Your task to perform on an android device: What's a good restaurant near me? Image 0: 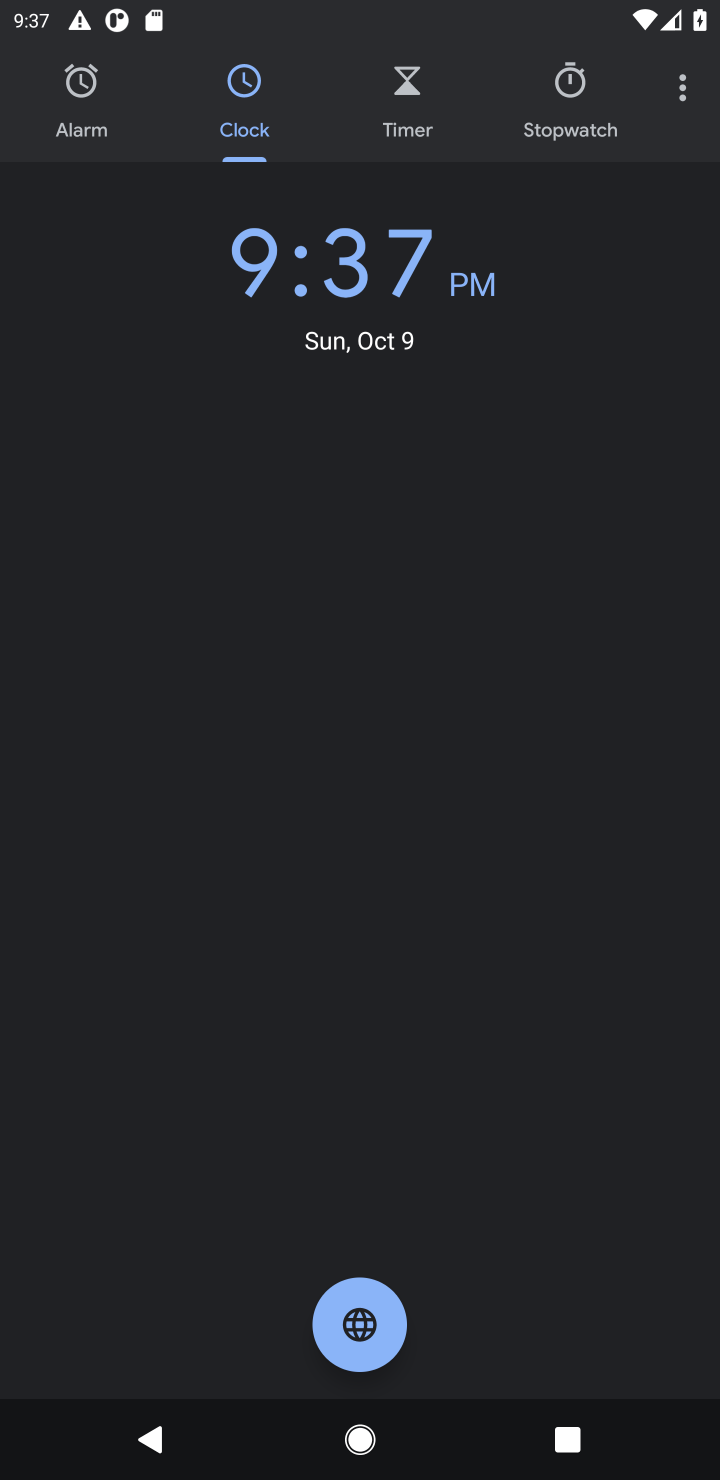
Step 0: press home button
Your task to perform on an android device: What's a good restaurant near me? Image 1: 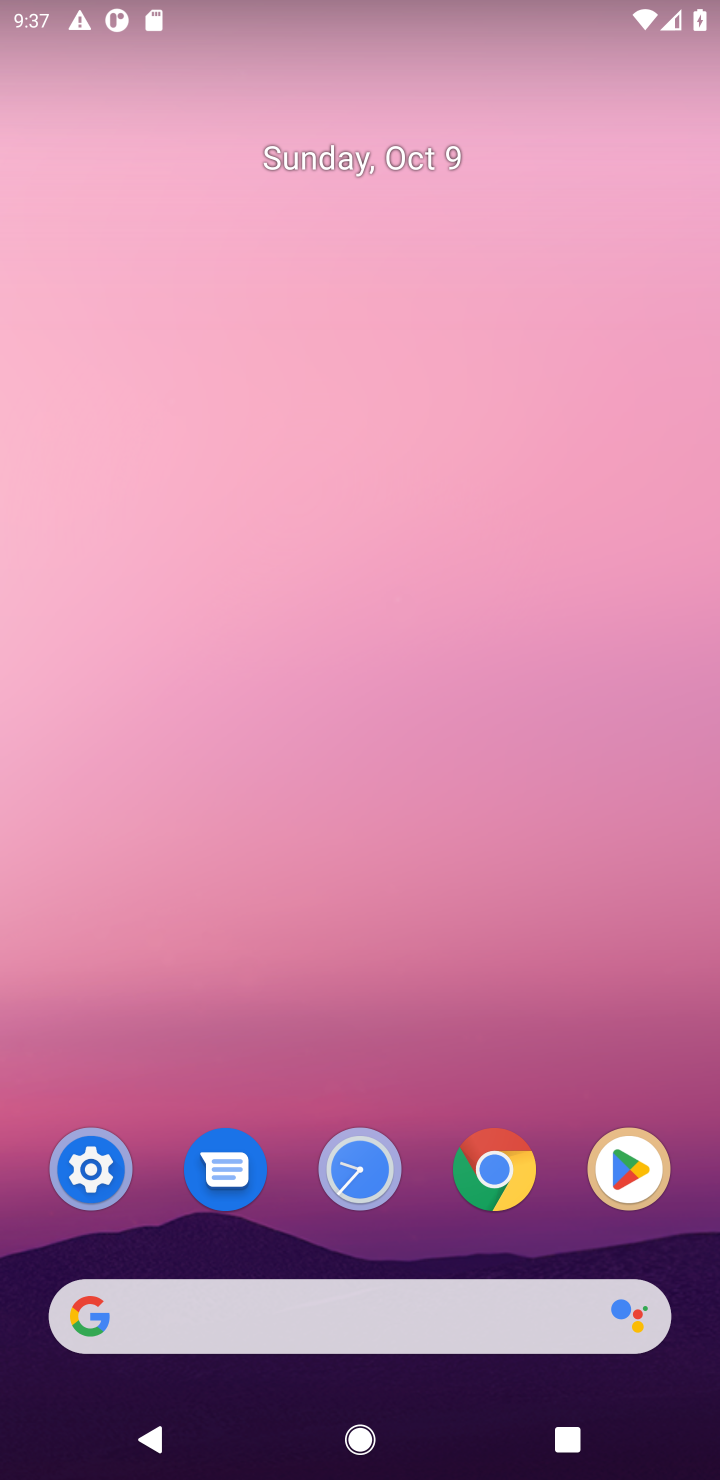
Step 1: click (280, 1298)
Your task to perform on an android device: What's a good restaurant near me? Image 2: 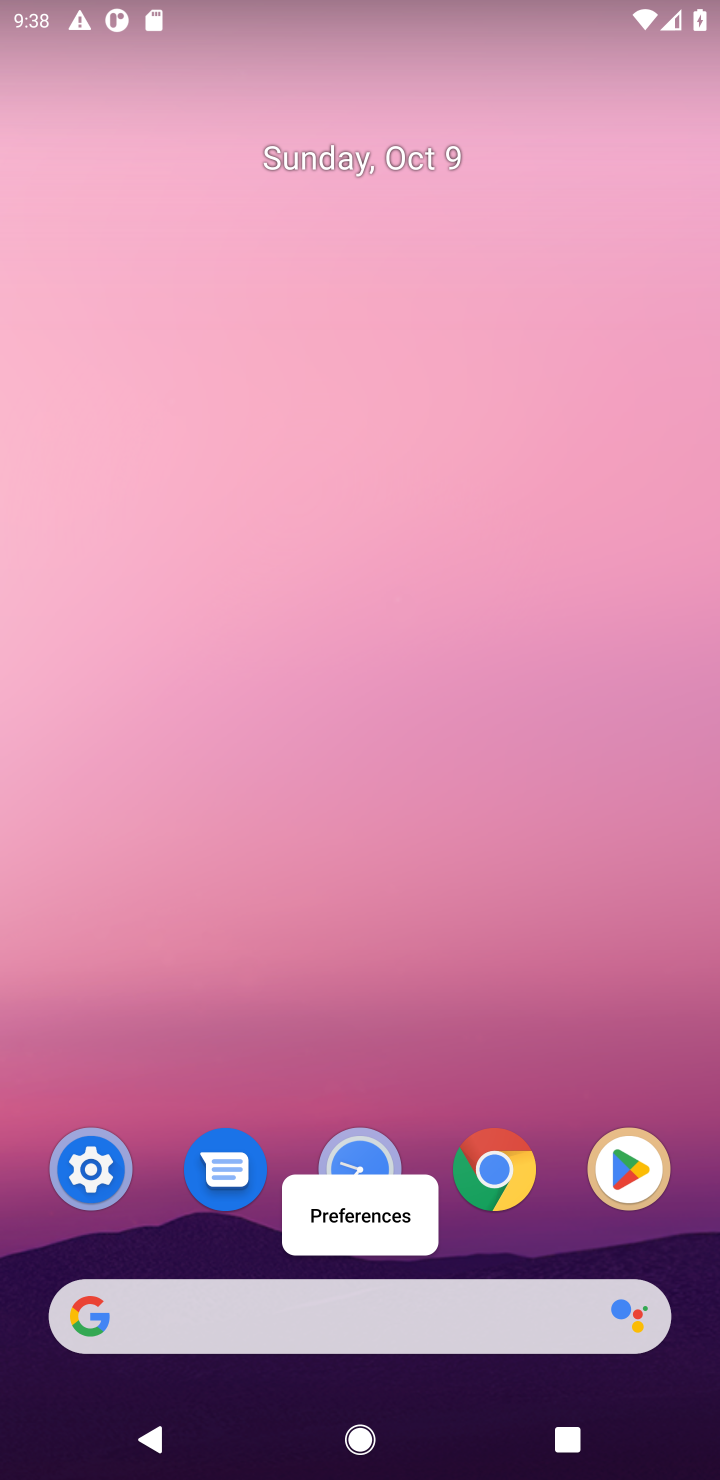
Step 2: click (279, 1318)
Your task to perform on an android device: What's a good restaurant near me? Image 3: 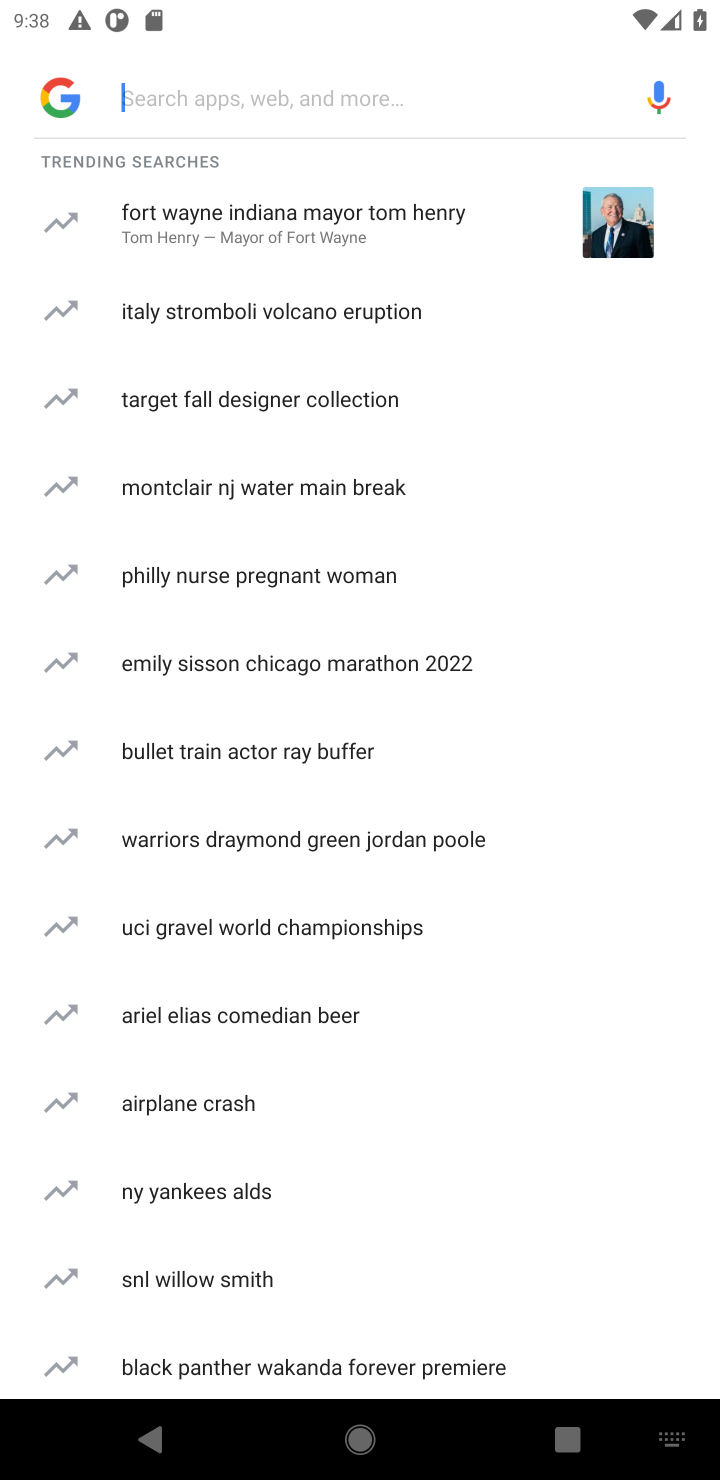
Step 3: click (335, 90)
Your task to perform on an android device: What's a good restaurant near me? Image 4: 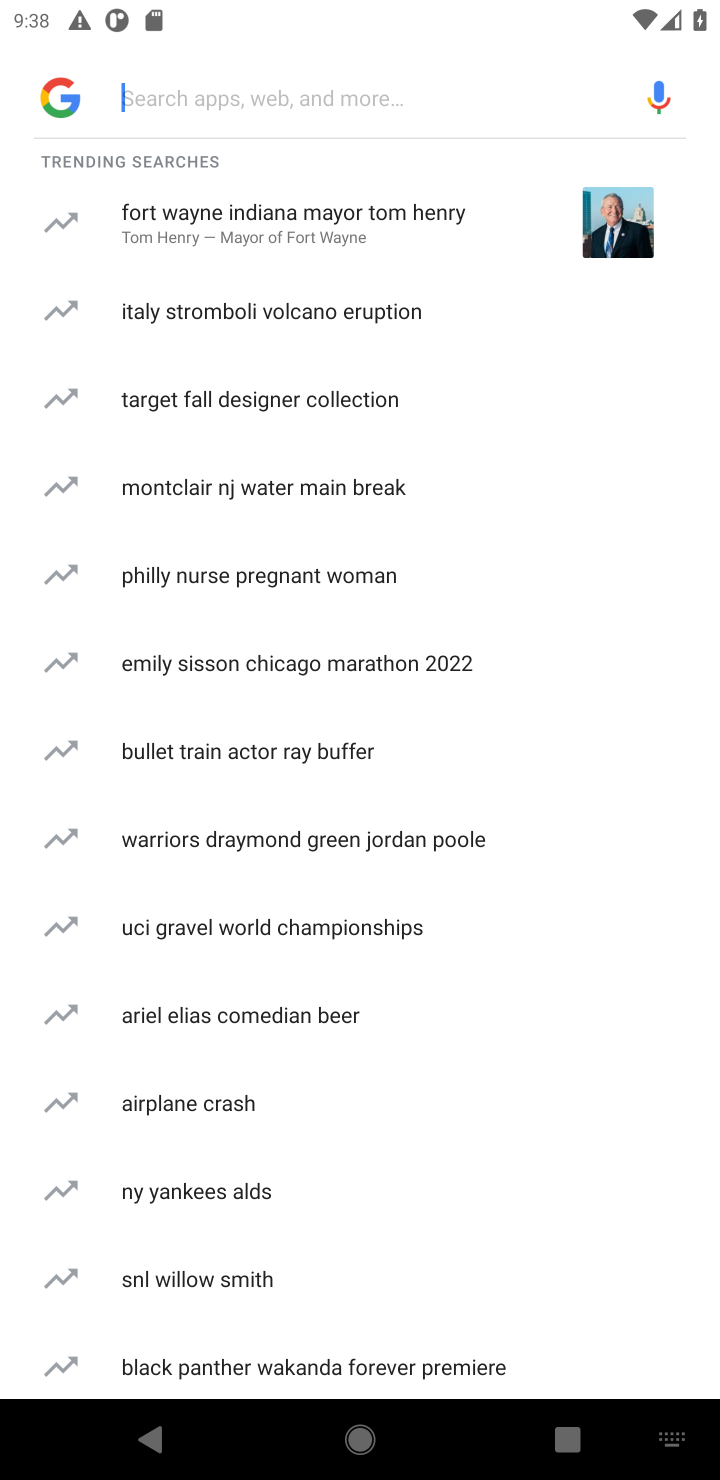
Step 4: type "What's a good restaurant near me"
Your task to perform on an android device: What's a good restaurant near me? Image 5: 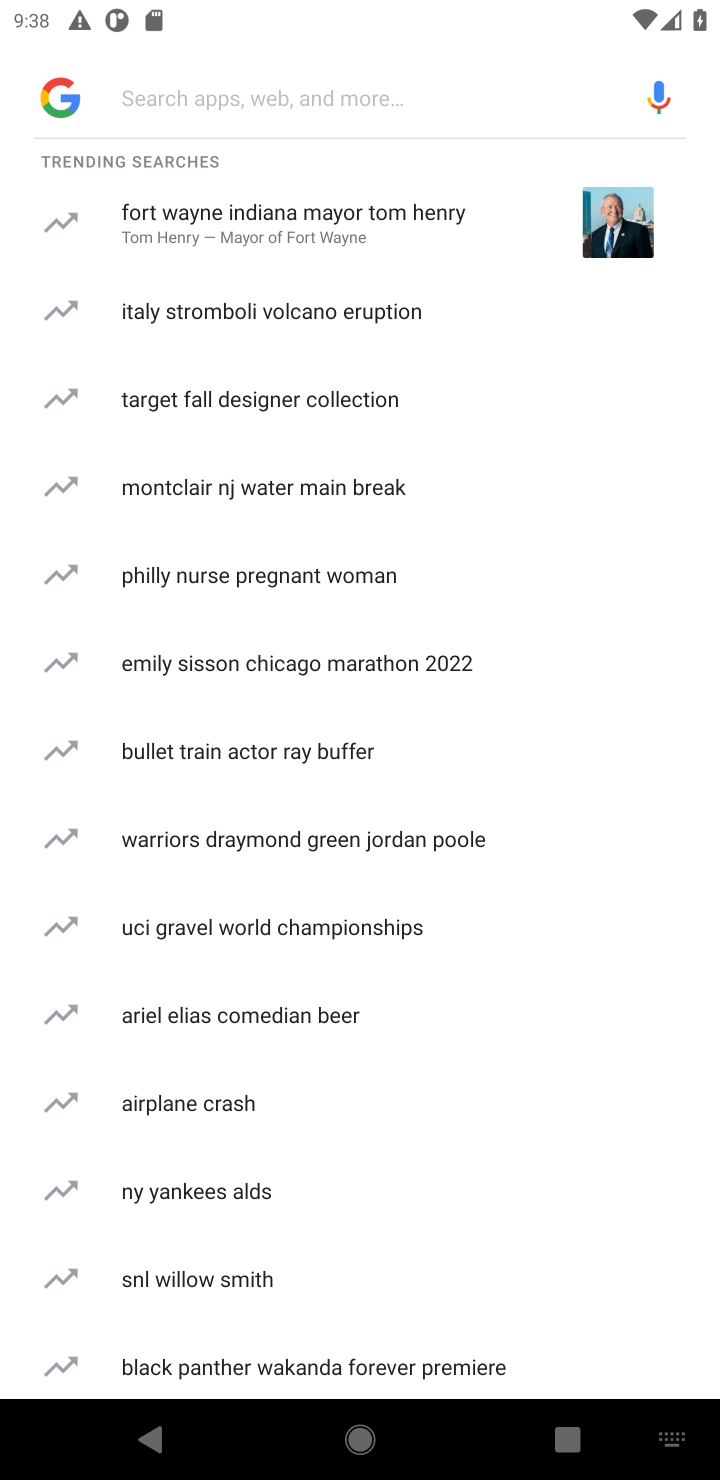
Step 5: click (237, 88)
Your task to perform on an android device: What's a good restaurant near me? Image 6: 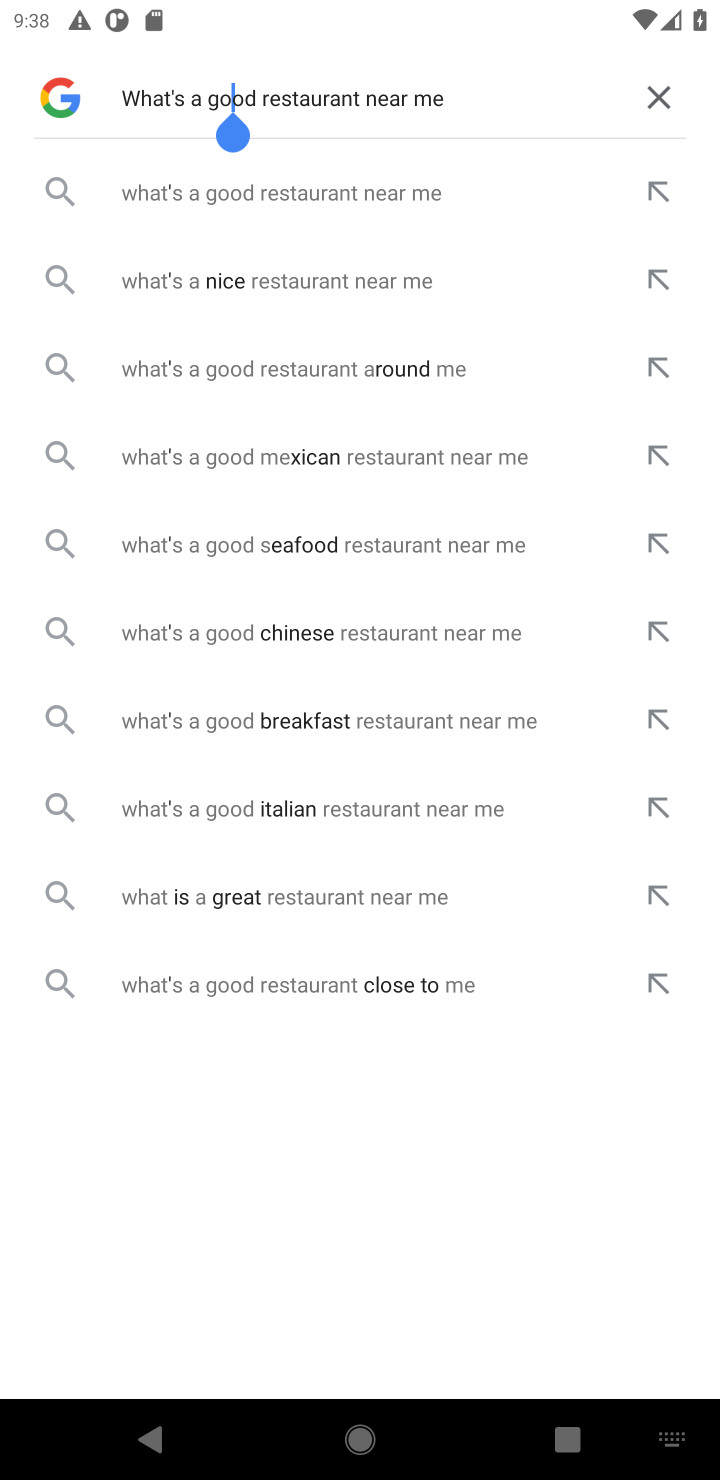
Step 6: click (255, 185)
Your task to perform on an android device: What's a good restaurant near me? Image 7: 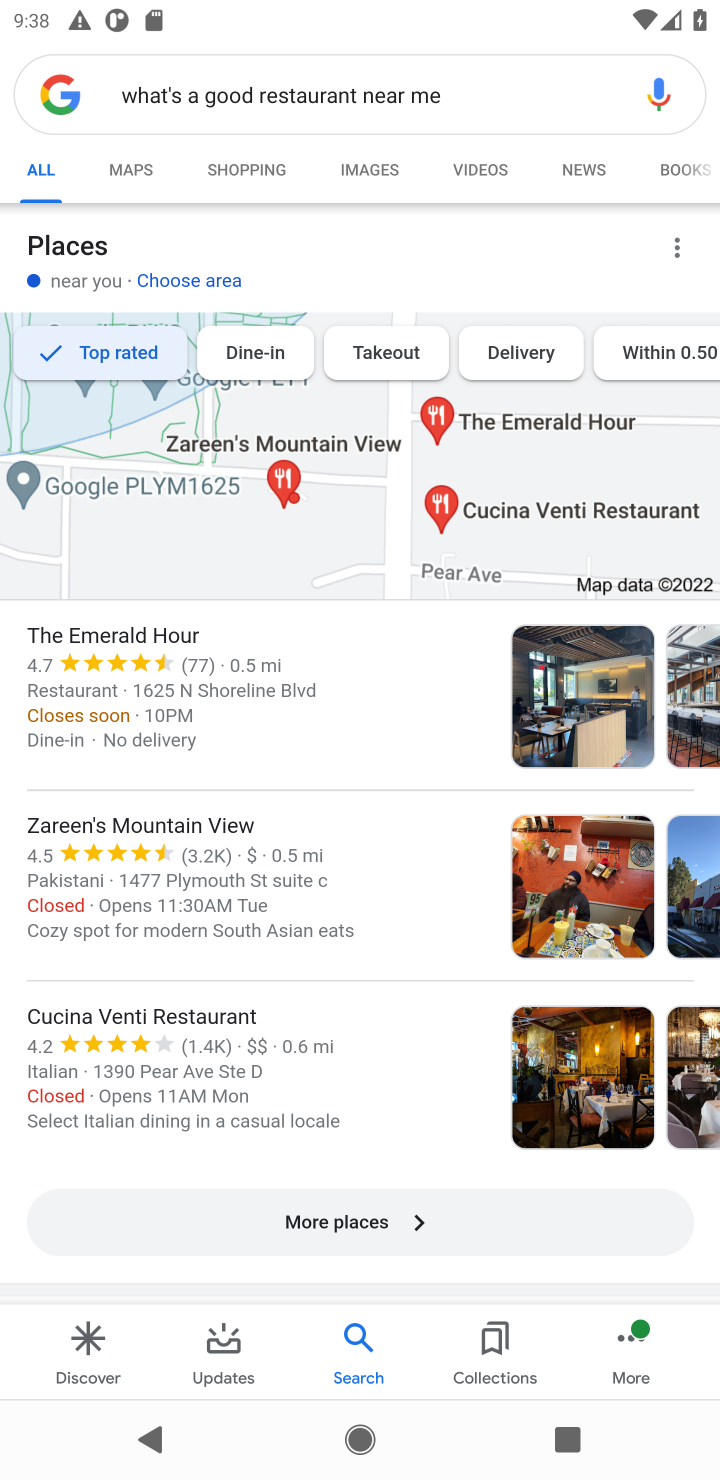
Step 7: task complete